Your task to perform on an android device: Go to battery settings Image 0: 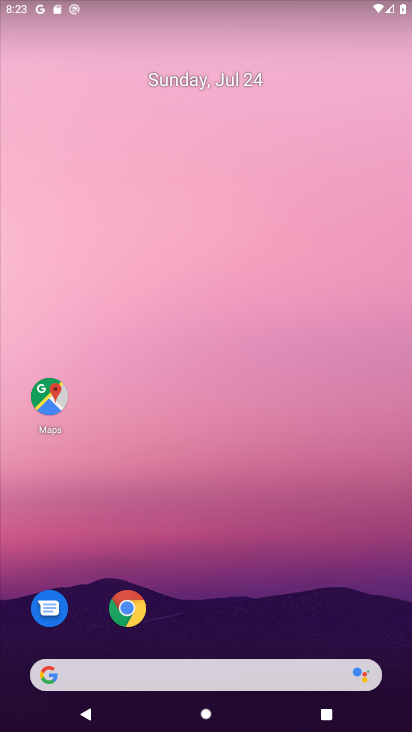
Step 0: drag from (243, 11) to (263, 519)
Your task to perform on an android device: Go to battery settings Image 1: 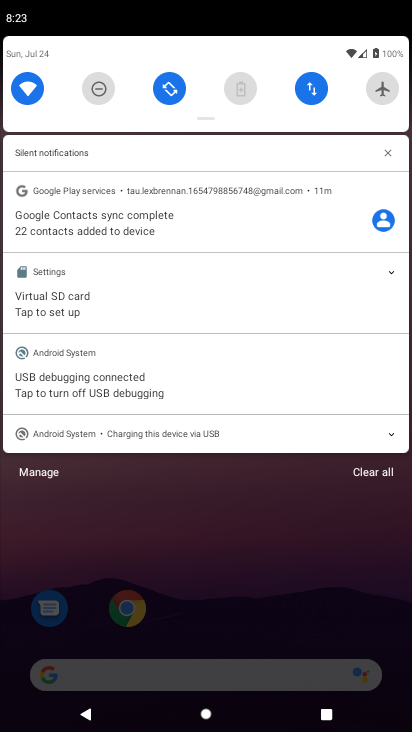
Step 1: click (244, 89)
Your task to perform on an android device: Go to battery settings Image 2: 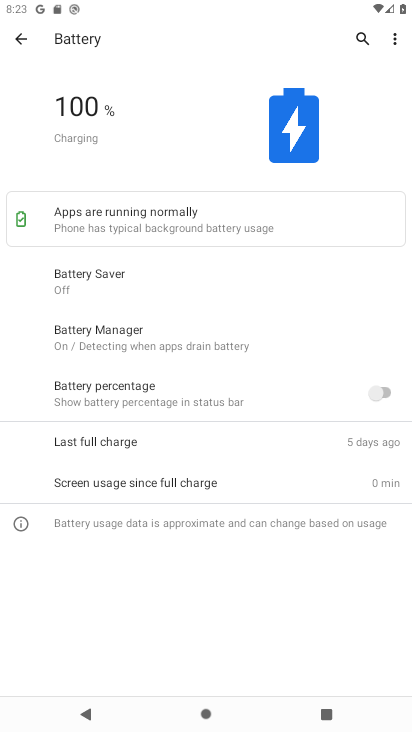
Step 2: task complete